Your task to perform on an android device: Search for bose soundlink mini on ebay, select the first entry, and add it to the cart. Image 0: 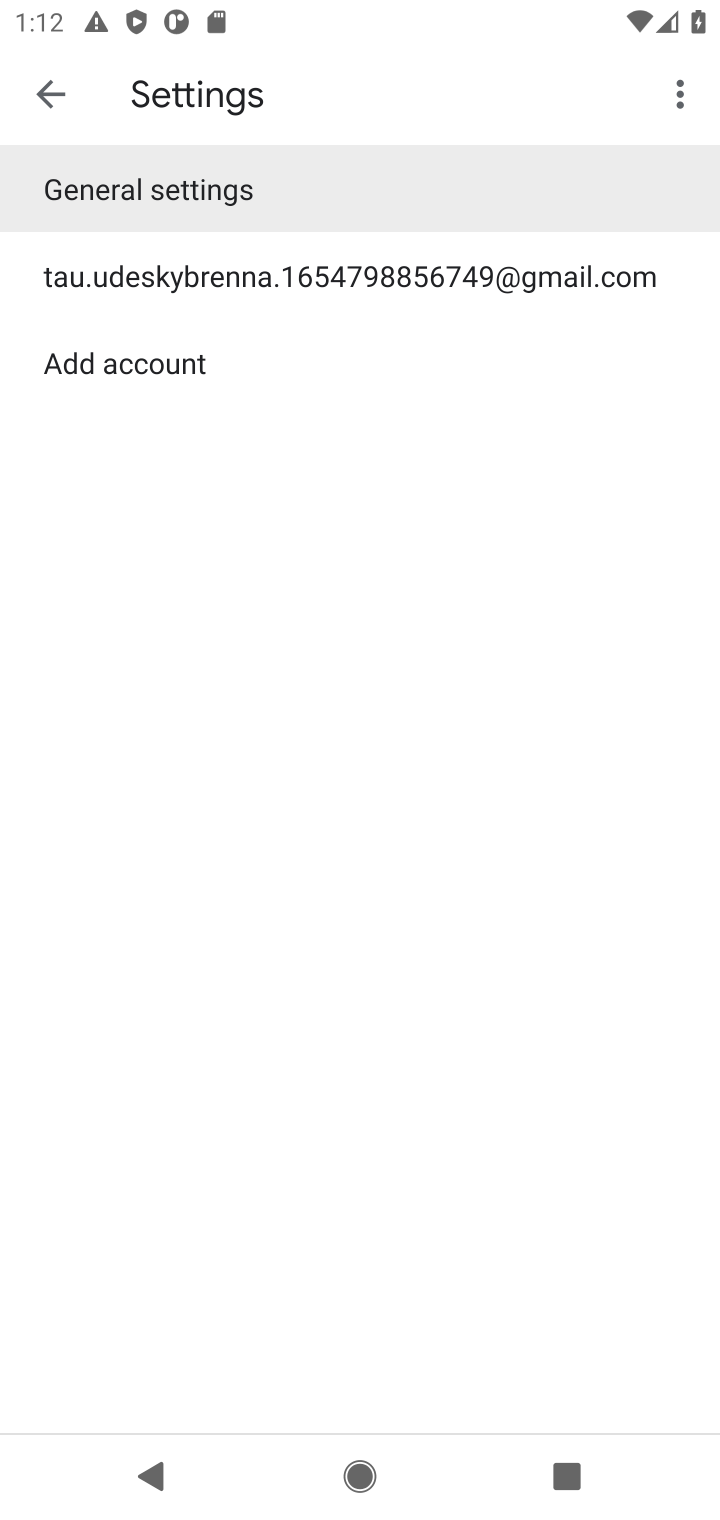
Step 0: press home button
Your task to perform on an android device: Search for bose soundlink mini on ebay, select the first entry, and add it to the cart. Image 1: 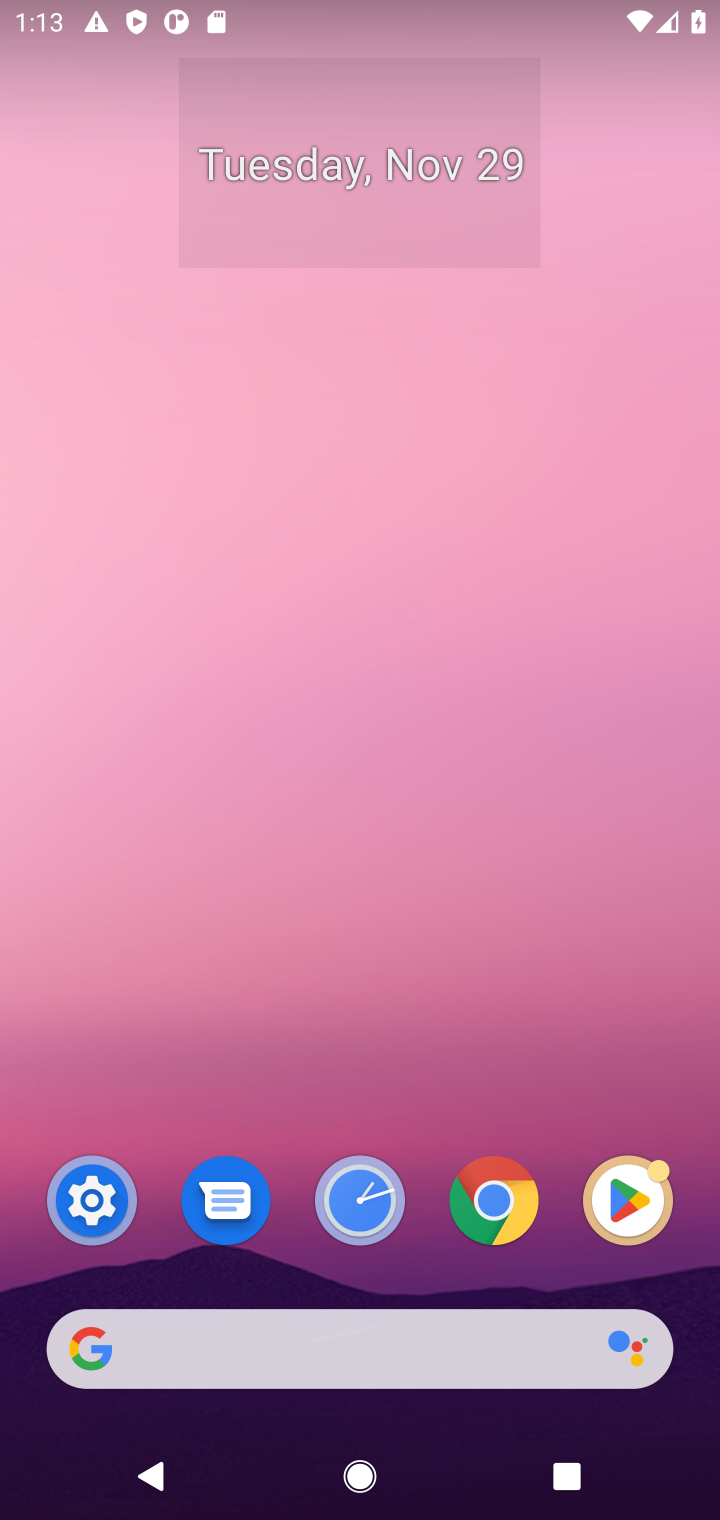
Step 1: click (385, 1367)
Your task to perform on an android device: Search for bose soundlink mini on ebay, select the first entry, and add it to the cart. Image 2: 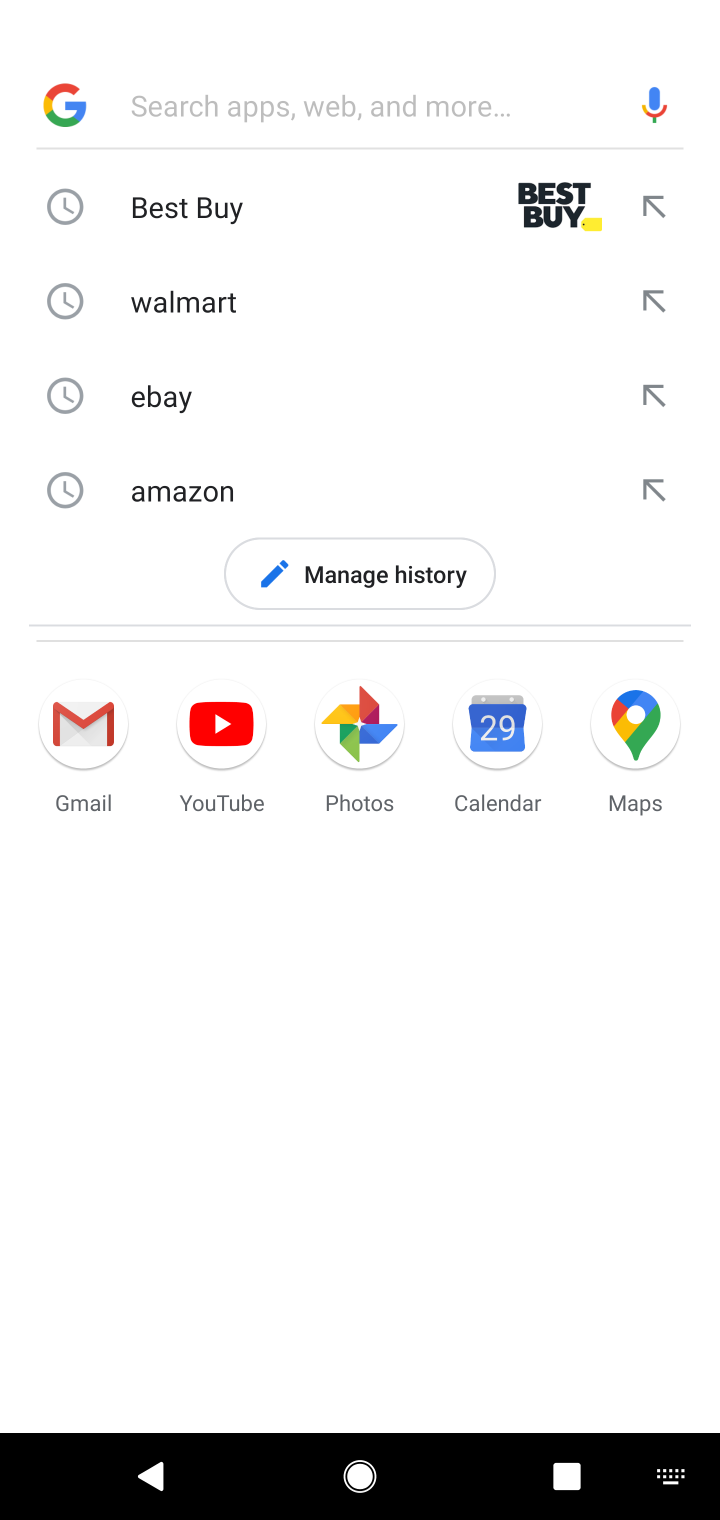
Step 2: click (537, 399)
Your task to perform on an android device: Search for bose soundlink mini on ebay, select the first entry, and add it to the cart. Image 3: 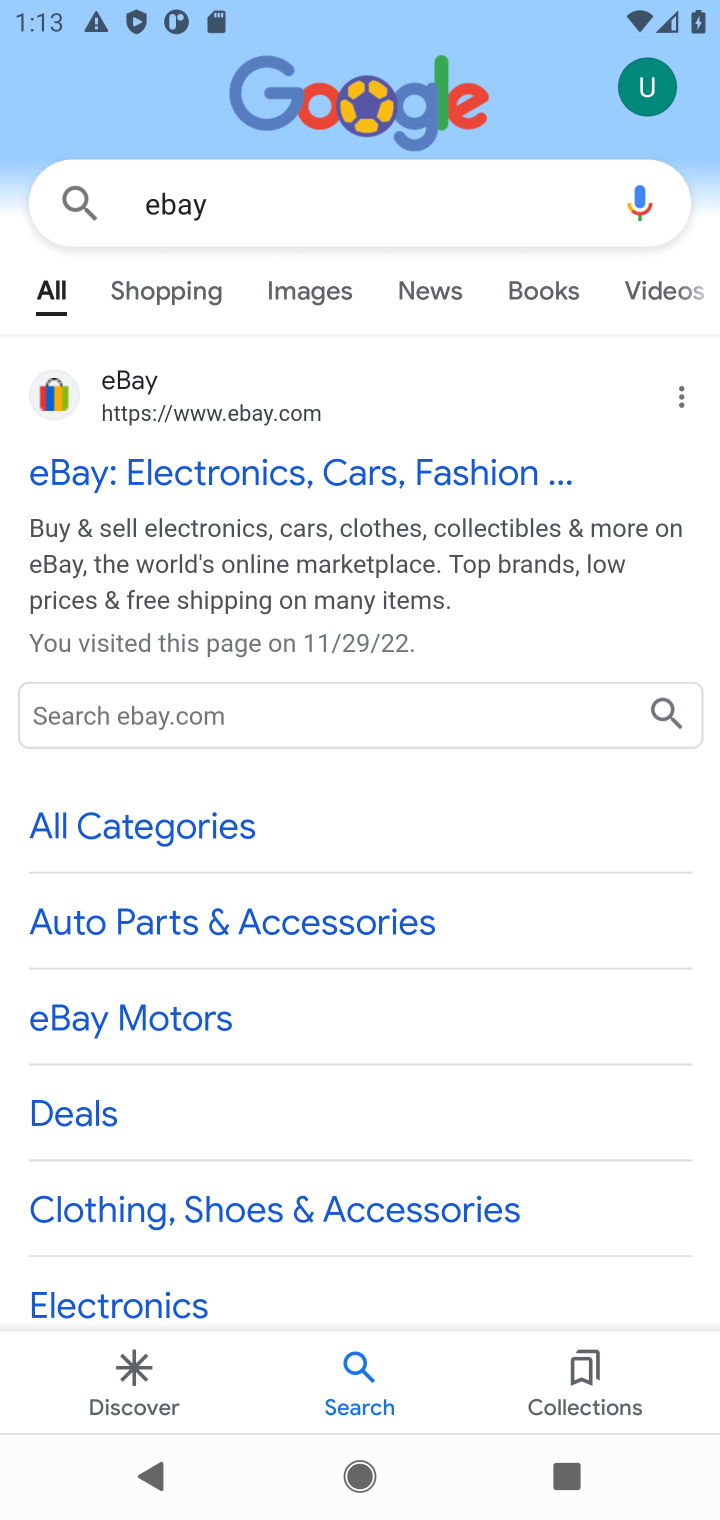
Step 3: click (491, 472)
Your task to perform on an android device: Search for bose soundlink mini on ebay, select the first entry, and add it to the cart. Image 4: 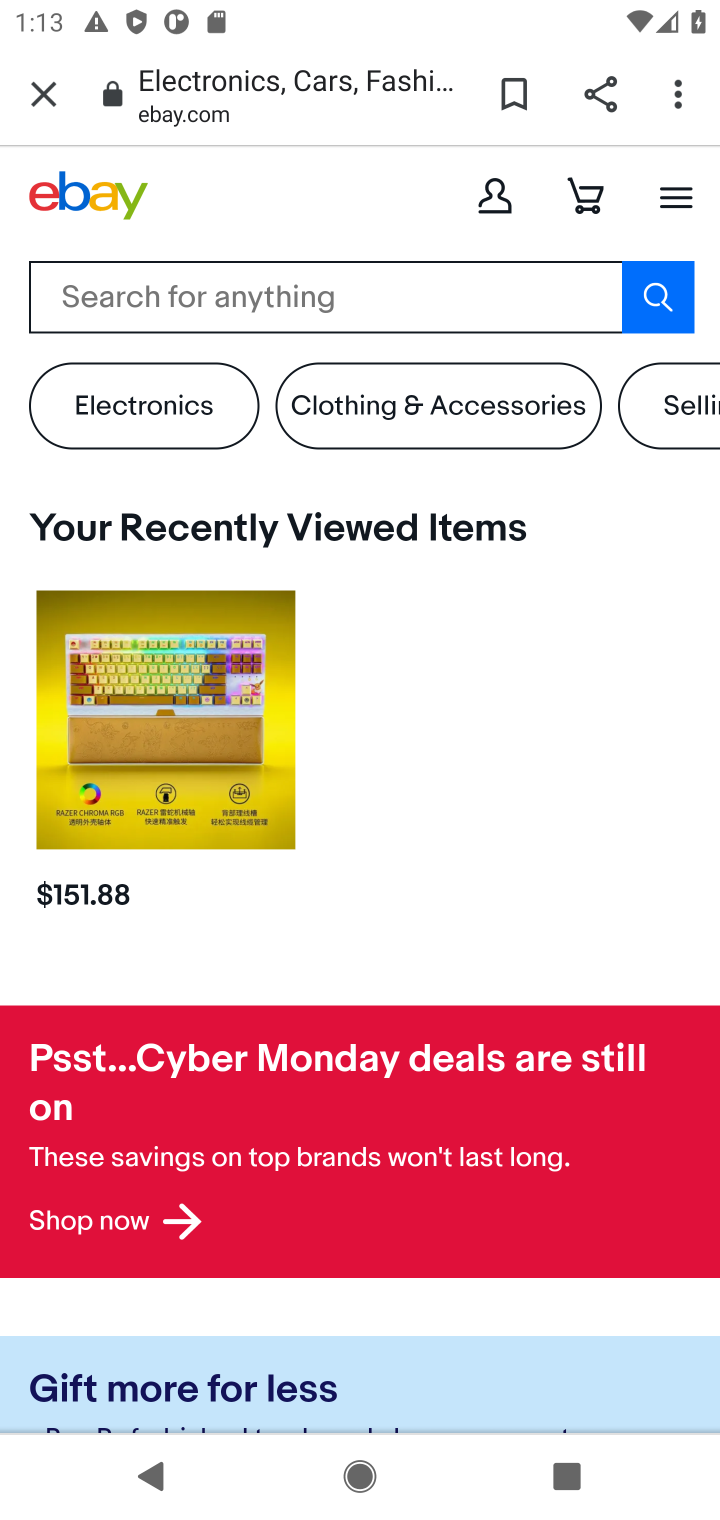
Step 4: task complete